Your task to perform on an android device: open a new tab in the chrome app Image 0: 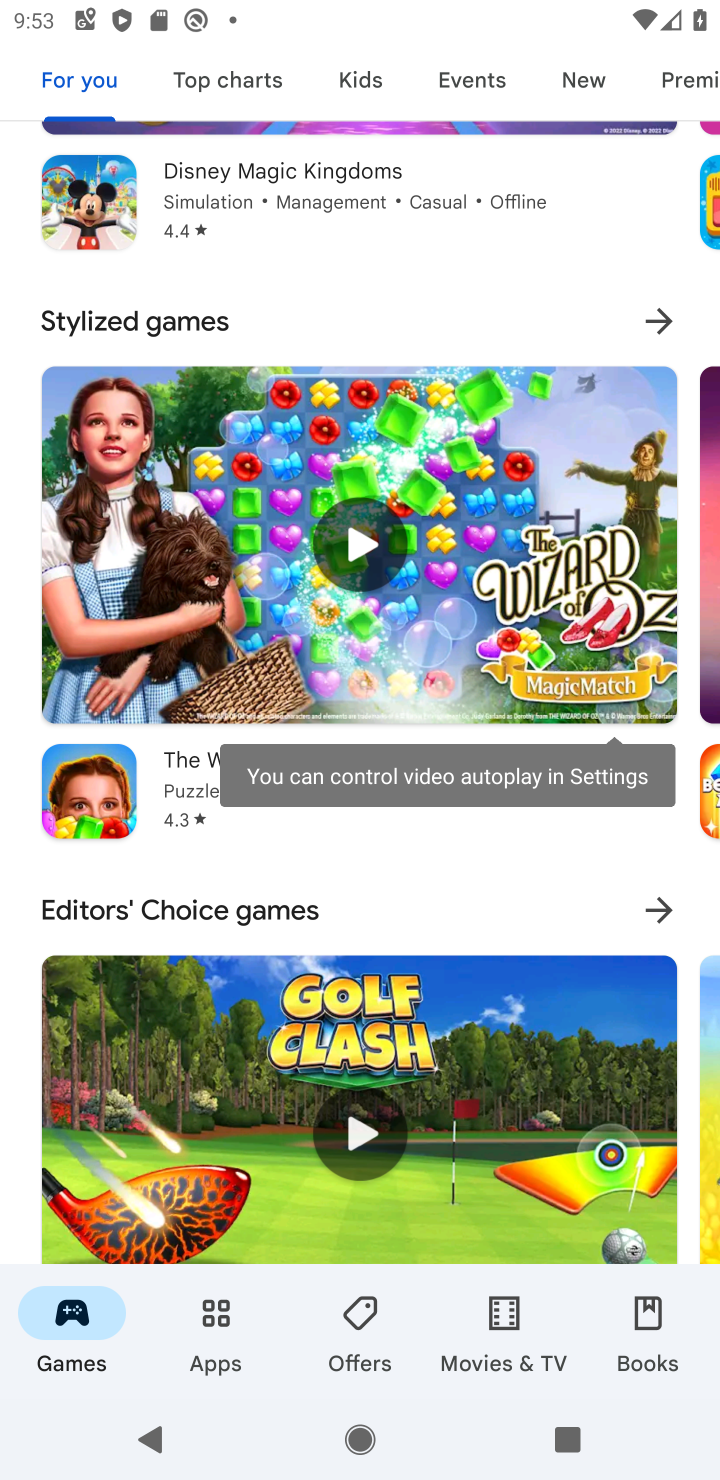
Step 0: press home button
Your task to perform on an android device: open a new tab in the chrome app Image 1: 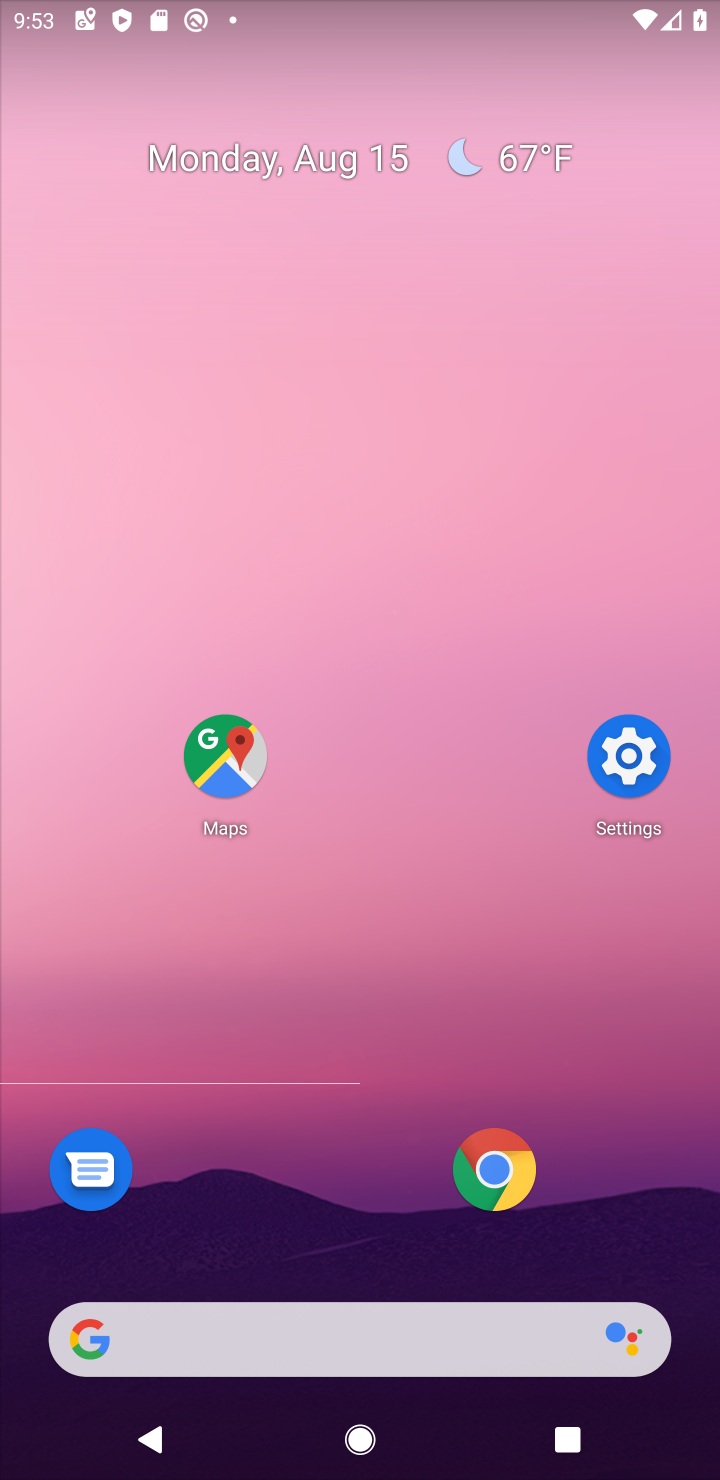
Step 1: click (490, 1178)
Your task to perform on an android device: open a new tab in the chrome app Image 2: 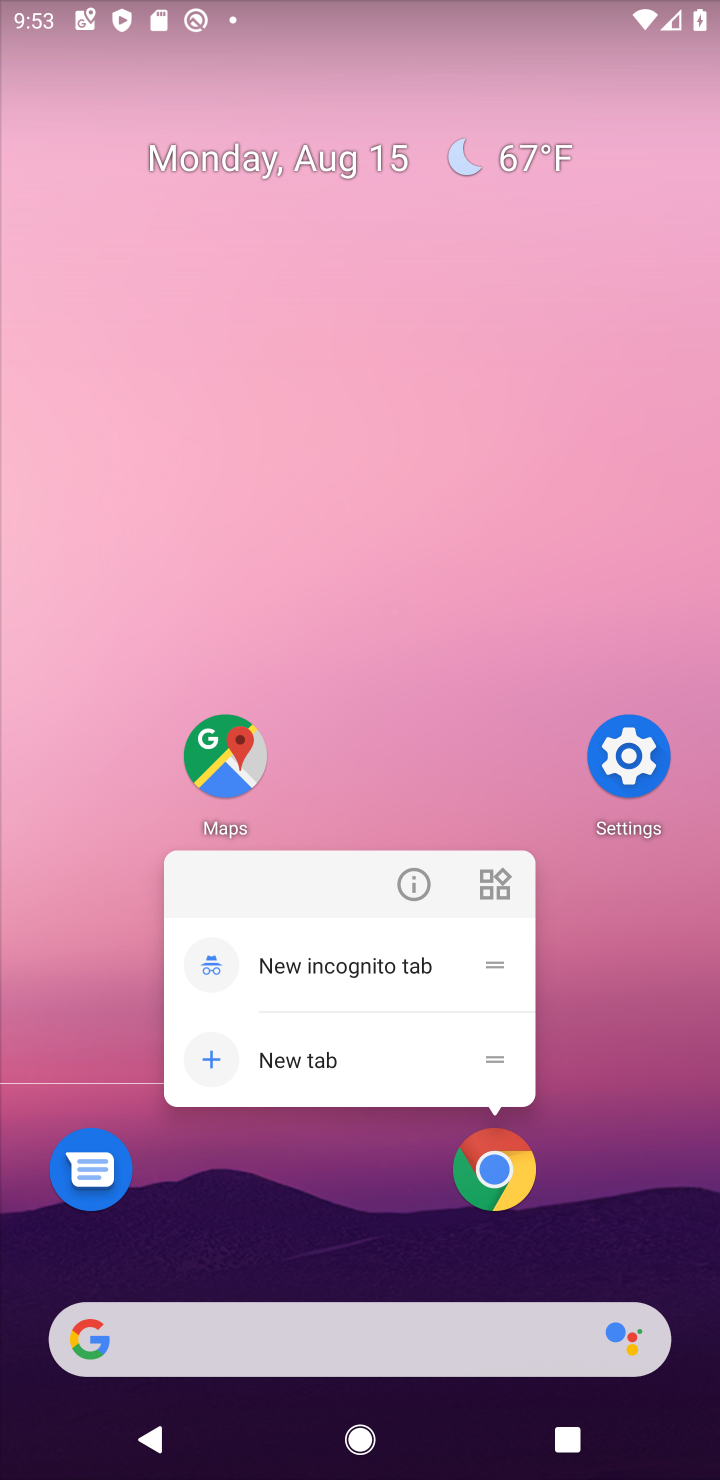
Step 2: click (490, 1178)
Your task to perform on an android device: open a new tab in the chrome app Image 3: 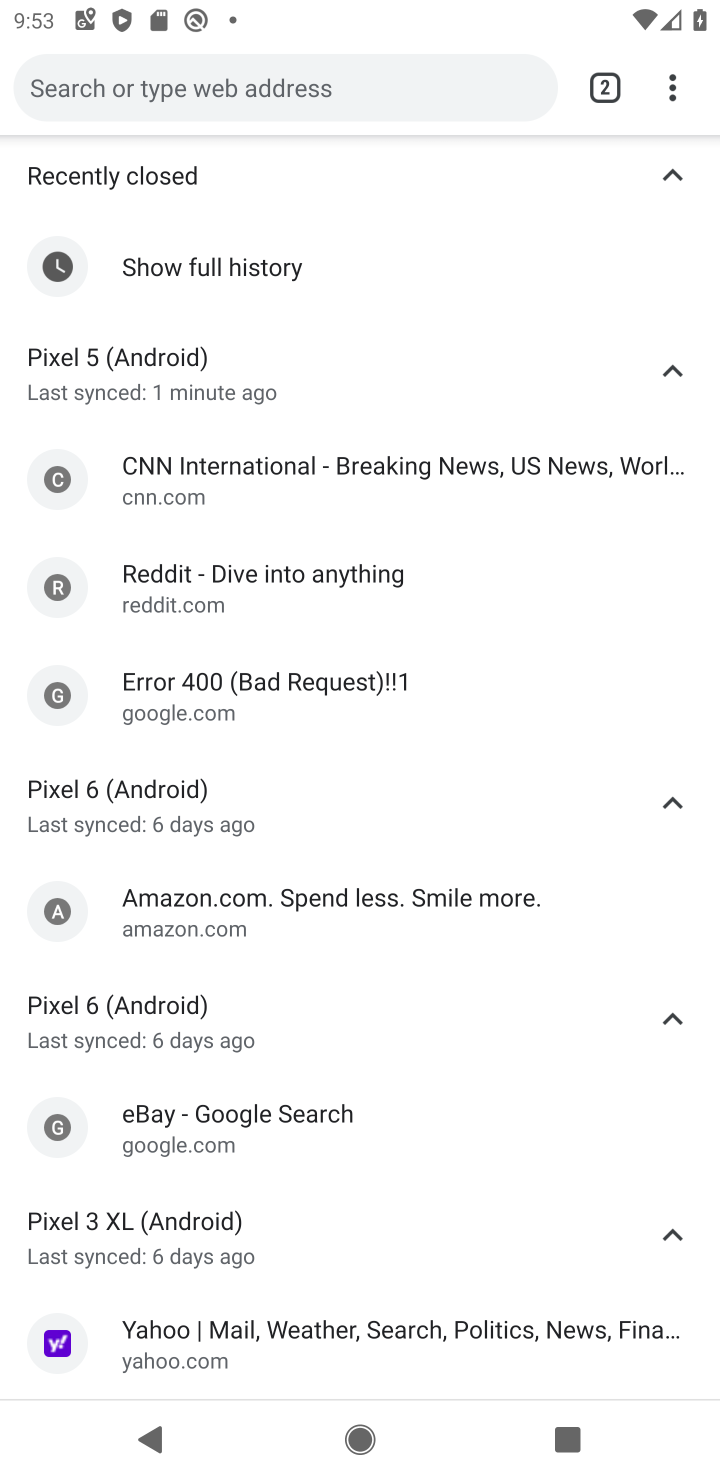
Step 3: task complete